Your task to perform on an android device: turn on location history Image 0: 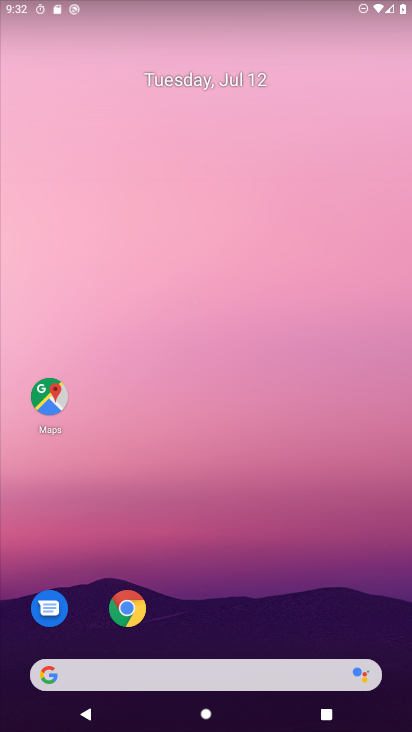
Step 0: drag from (254, 2) to (275, 559)
Your task to perform on an android device: turn on location history Image 1: 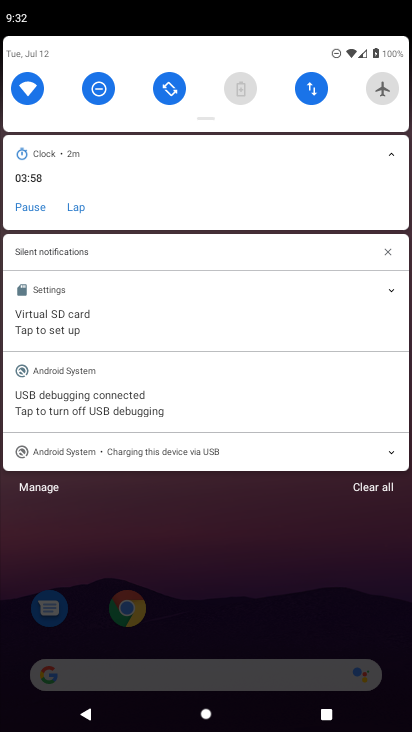
Step 1: drag from (210, 70) to (260, 706)
Your task to perform on an android device: turn on location history Image 2: 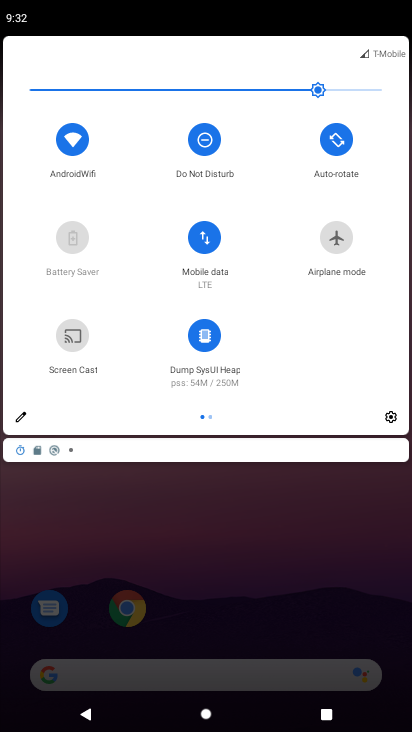
Step 2: click (396, 419)
Your task to perform on an android device: turn on location history Image 3: 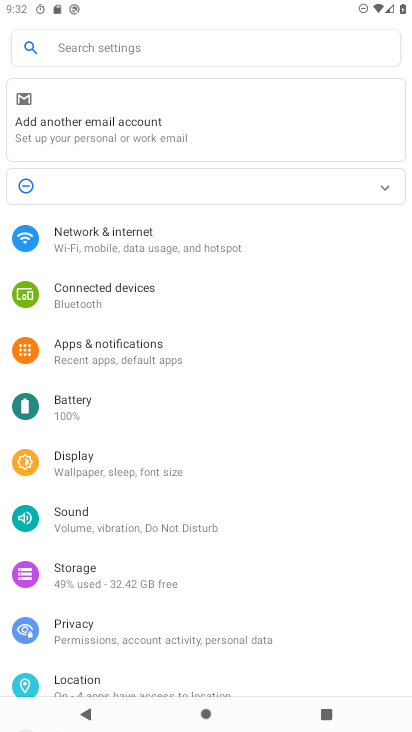
Step 3: click (78, 672)
Your task to perform on an android device: turn on location history Image 4: 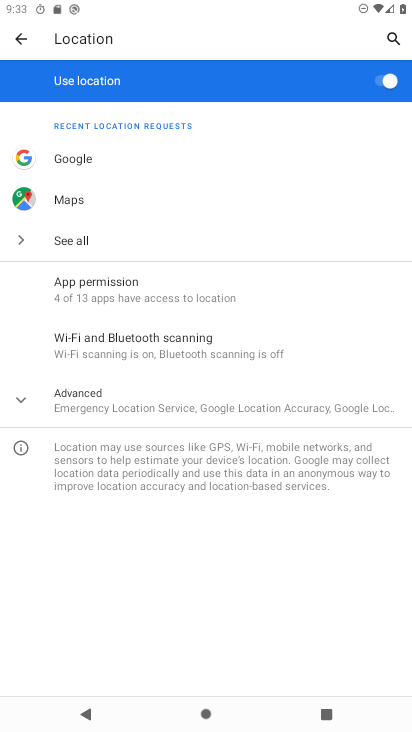
Step 4: click (108, 419)
Your task to perform on an android device: turn on location history Image 5: 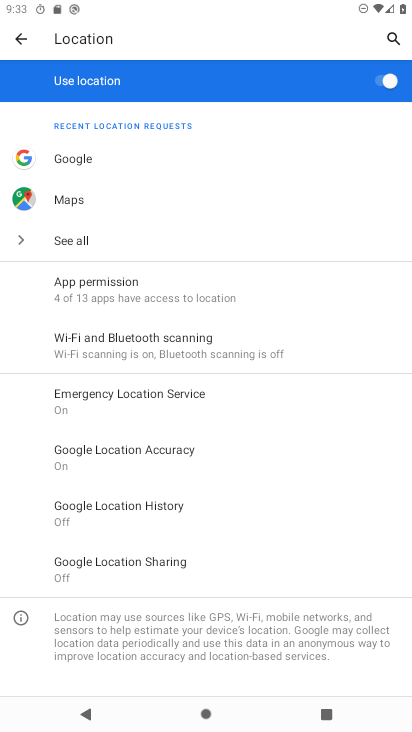
Step 5: click (222, 501)
Your task to perform on an android device: turn on location history Image 6: 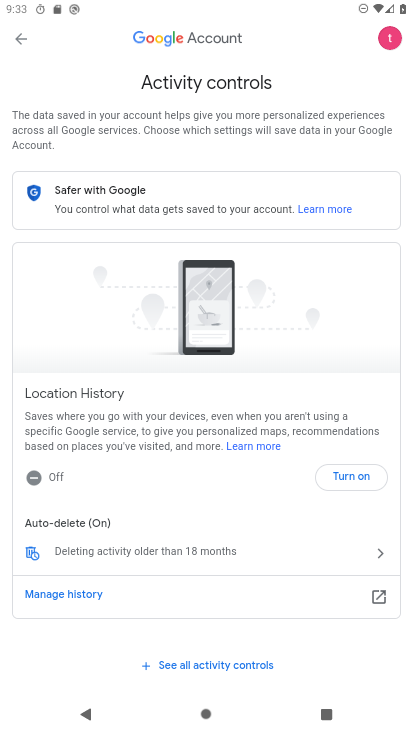
Step 6: click (369, 473)
Your task to perform on an android device: turn on location history Image 7: 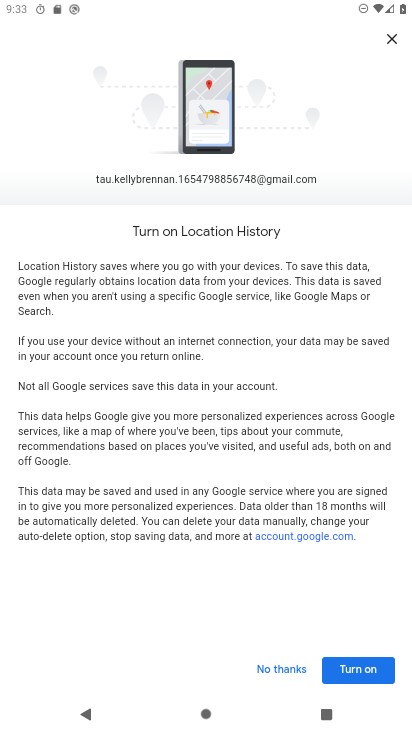
Step 7: click (340, 662)
Your task to perform on an android device: turn on location history Image 8: 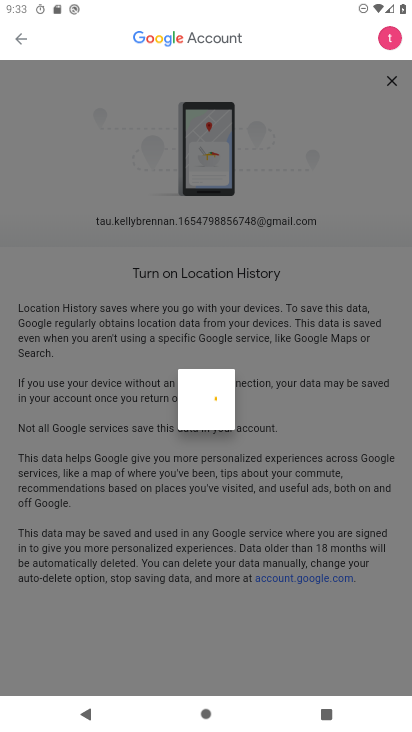
Step 8: click (359, 668)
Your task to perform on an android device: turn on location history Image 9: 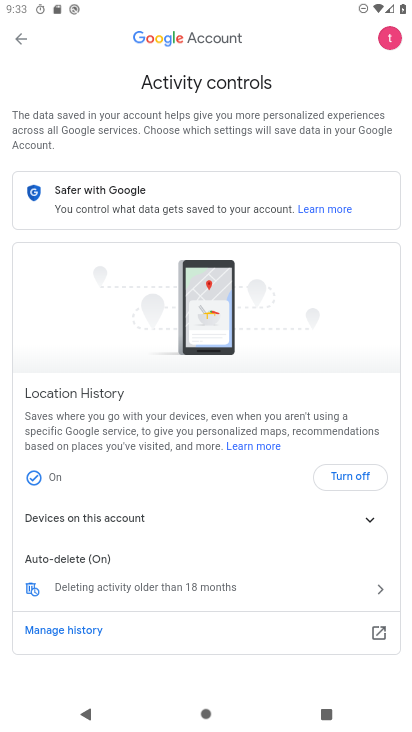
Step 9: task complete